Your task to perform on an android device: Show the shopping cart on bestbuy.com. Search for "acer nitro" on bestbuy.com, select the first entry, and add it to the cart. Image 0: 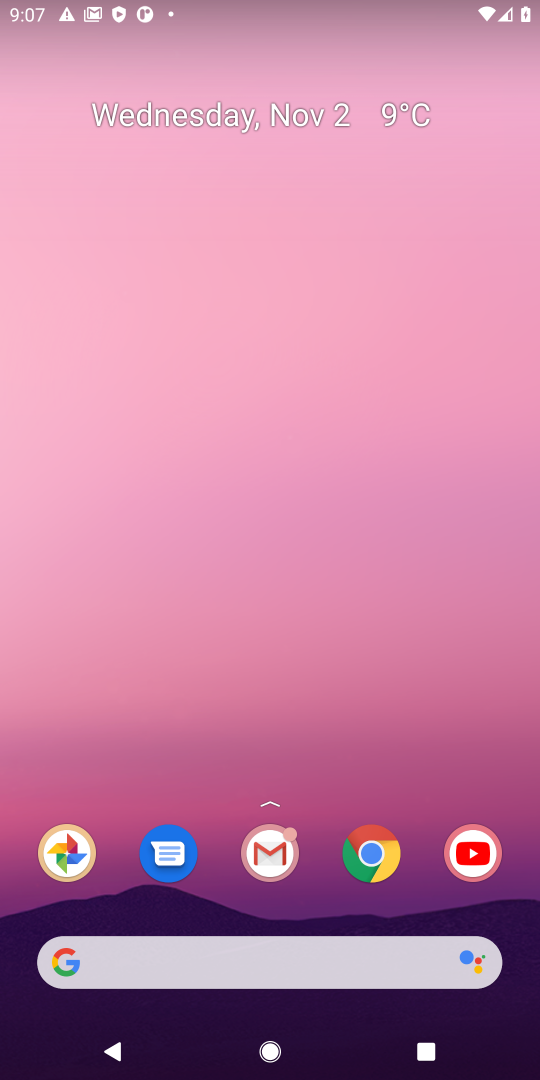
Step 0: click (372, 850)
Your task to perform on an android device: Show the shopping cart on bestbuy.com. Search for "acer nitro" on bestbuy.com, select the first entry, and add it to the cart. Image 1: 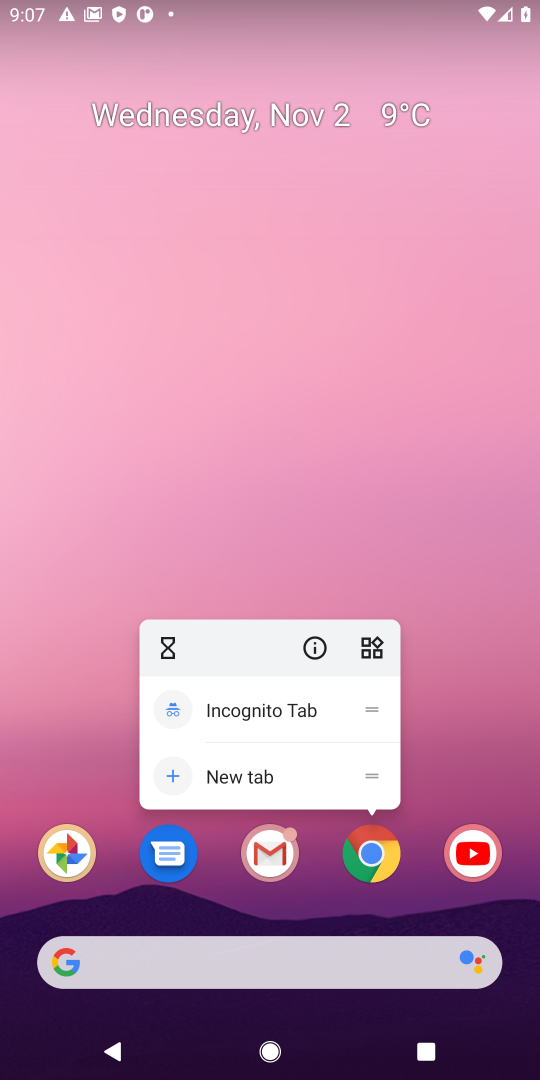
Step 1: click (372, 850)
Your task to perform on an android device: Show the shopping cart on bestbuy.com. Search for "acer nitro" on bestbuy.com, select the first entry, and add it to the cart. Image 2: 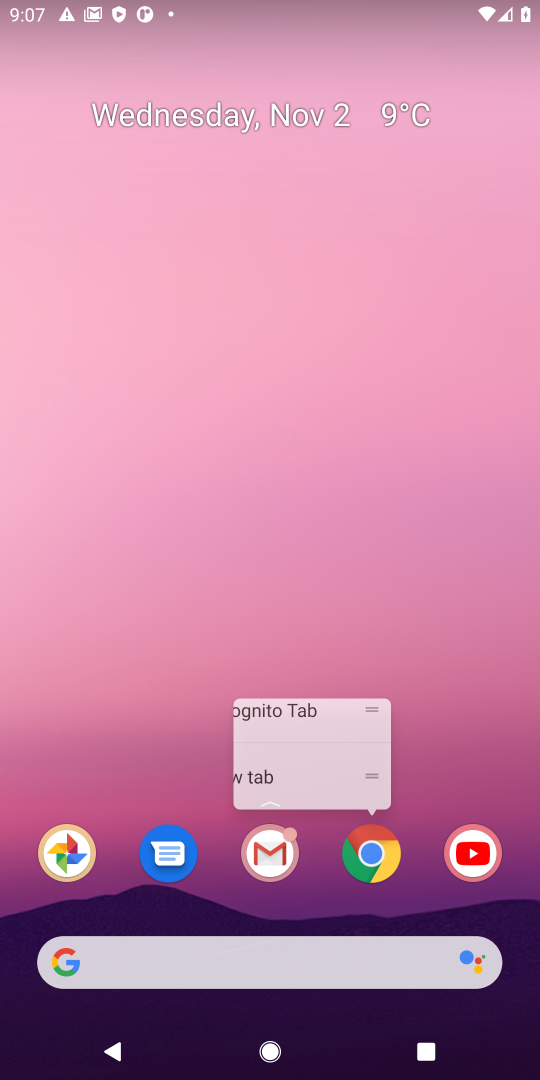
Step 2: click (372, 850)
Your task to perform on an android device: Show the shopping cart on bestbuy.com. Search for "acer nitro" on bestbuy.com, select the first entry, and add it to the cart. Image 3: 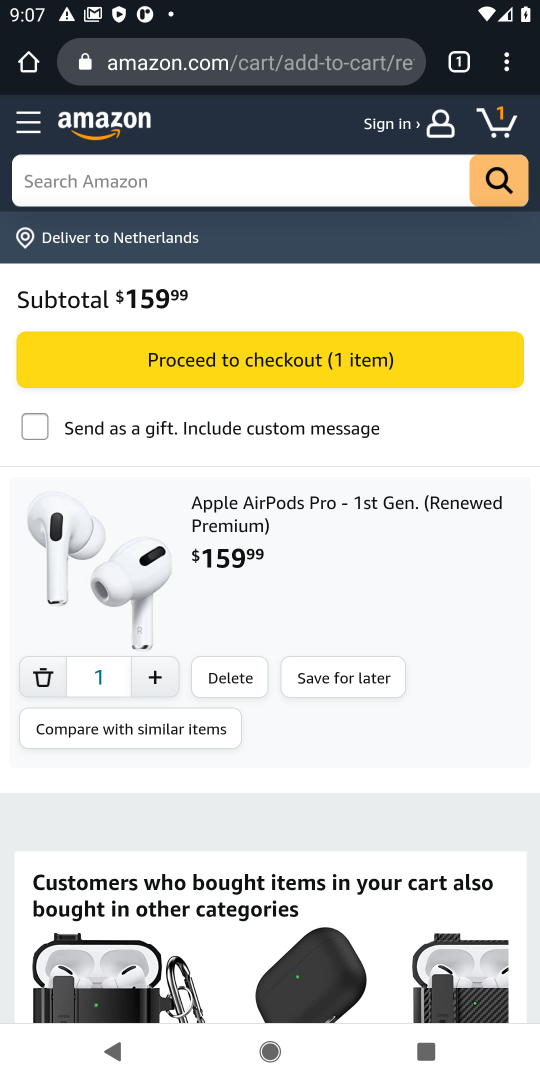
Step 3: click (269, 60)
Your task to perform on an android device: Show the shopping cart on bestbuy.com. Search for "acer nitro" on bestbuy.com, select the first entry, and add it to the cart. Image 4: 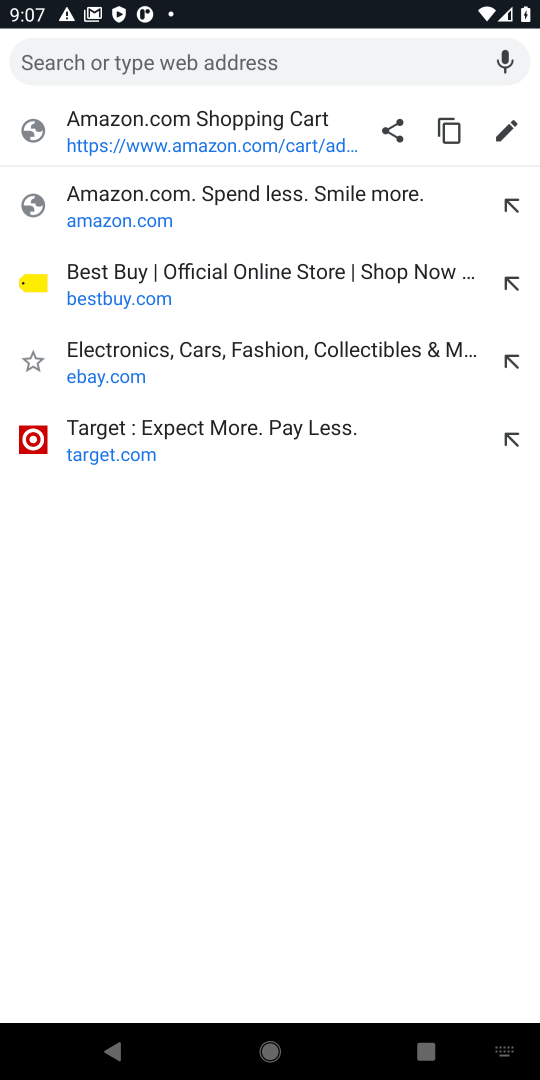
Step 4: type "bestbuy.com"
Your task to perform on an android device: Show the shopping cart on bestbuy.com. Search for "acer nitro" on bestbuy.com, select the first entry, and add it to the cart. Image 5: 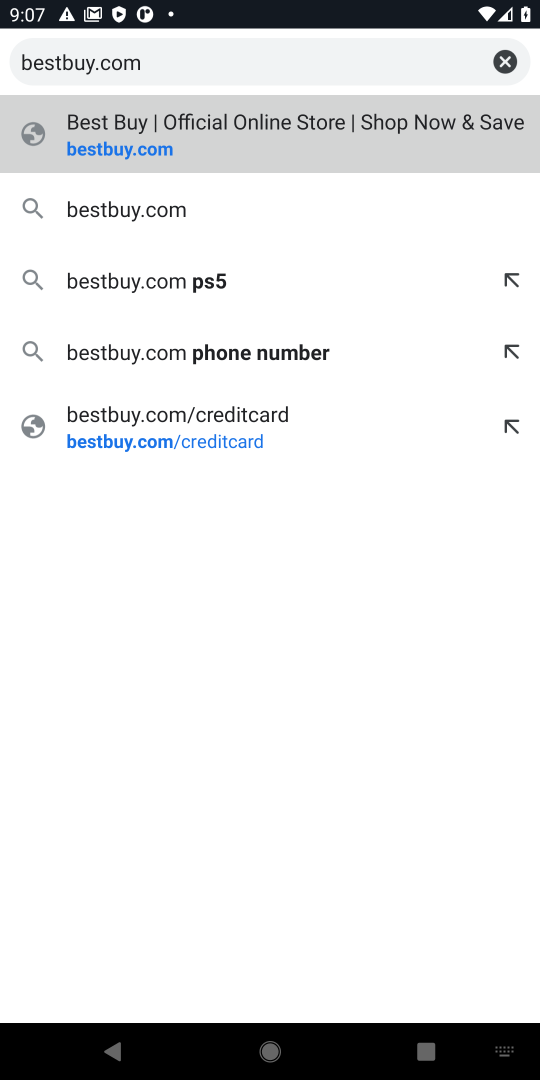
Step 5: press enter
Your task to perform on an android device: Show the shopping cart on bestbuy.com. Search for "acer nitro" on bestbuy.com, select the first entry, and add it to the cart. Image 6: 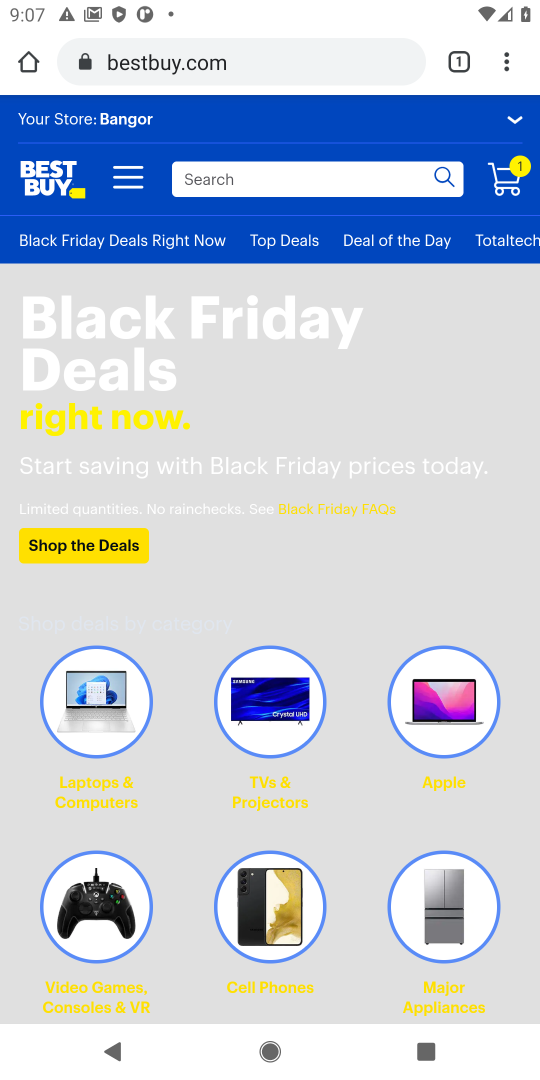
Step 6: click (278, 181)
Your task to perform on an android device: Show the shopping cart on bestbuy.com. Search for "acer nitro" on bestbuy.com, select the first entry, and add it to the cart. Image 7: 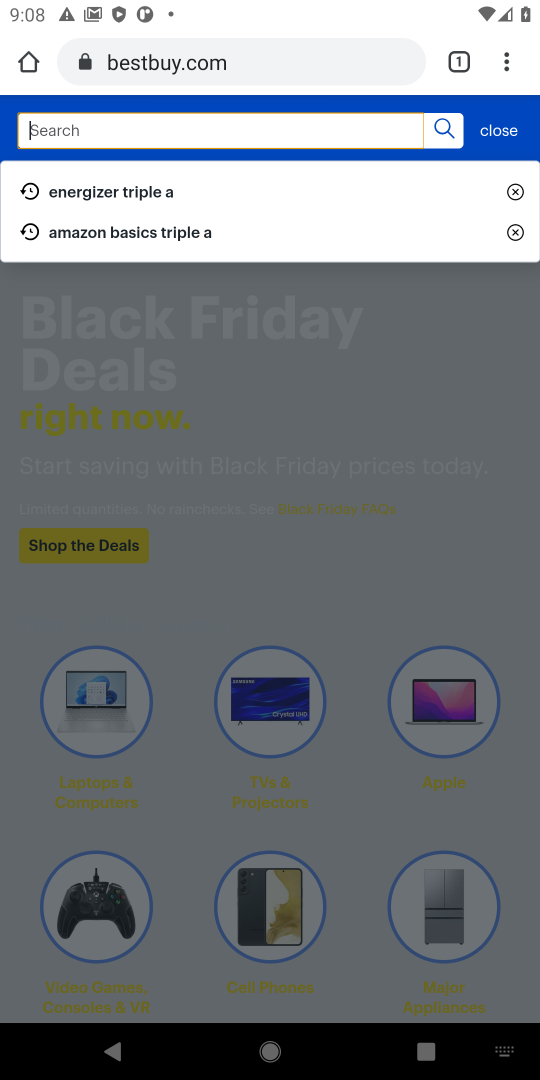
Step 7: type "acer nitro"
Your task to perform on an android device: Show the shopping cart on bestbuy.com. Search for "acer nitro" on bestbuy.com, select the first entry, and add it to the cart. Image 8: 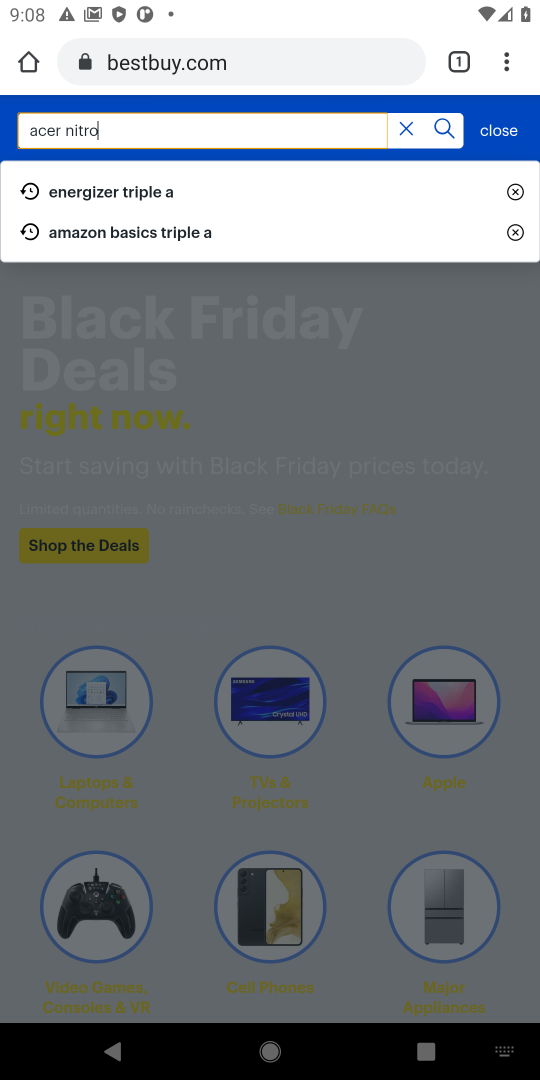
Step 8: press enter
Your task to perform on an android device: Show the shopping cart on bestbuy.com. Search for "acer nitro" on bestbuy.com, select the first entry, and add it to the cart. Image 9: 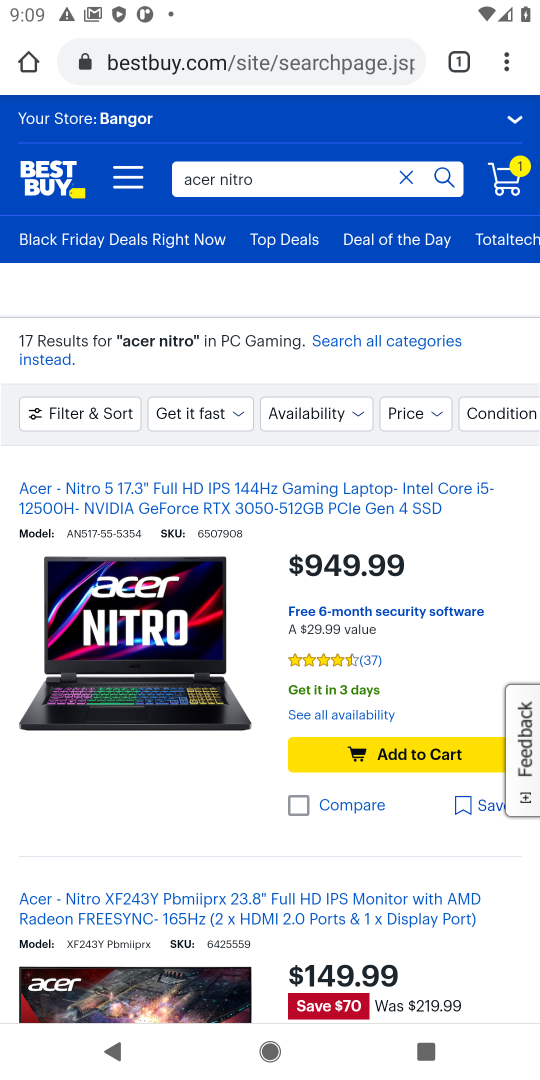
Step 9: click (420, 749)
Your task to perform on an android device: Show the shopping cart on bestbuy.com. Search for "acer nitro" on bestbuy.com, select the first entry, and add it to the cart. Image 10: 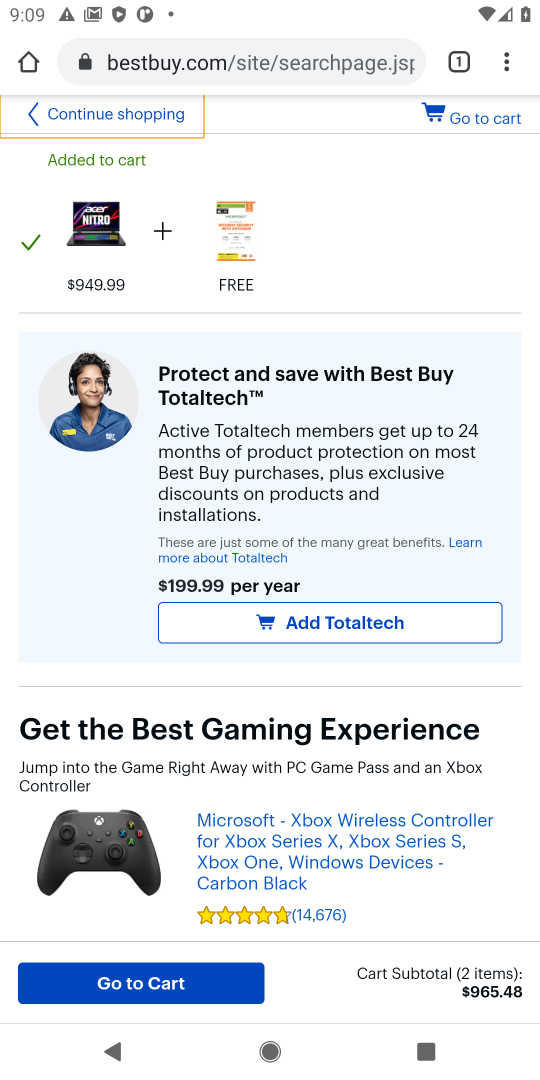
Step 10: task complete